Your task to perform on an android device: Play the last video I watched on Youtube Image 0: 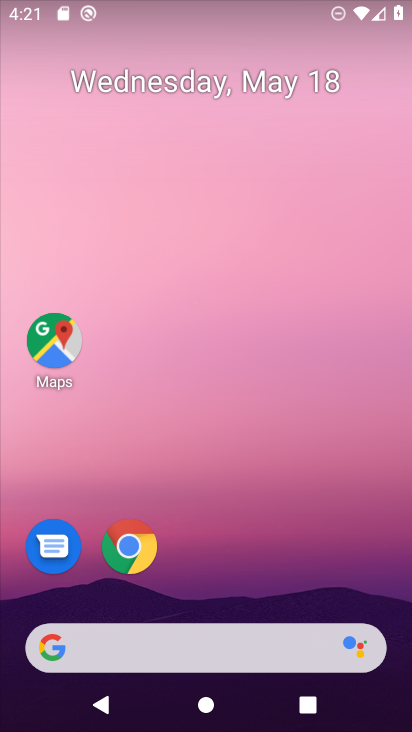
Step 0: drag from (247, 580) to (285, 202)
Your task to perform on an android device: Play the last video I watched on Youtube Image 1: 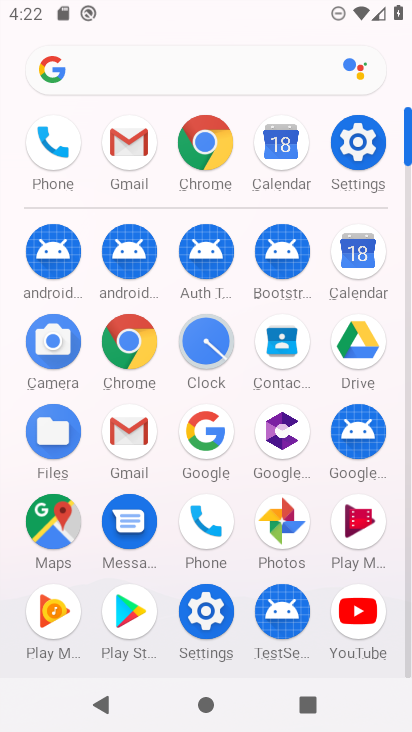
Step 1: click (353, 630)
Your task to perform on an android device: Play the last video I watched on Youtube Image 2: 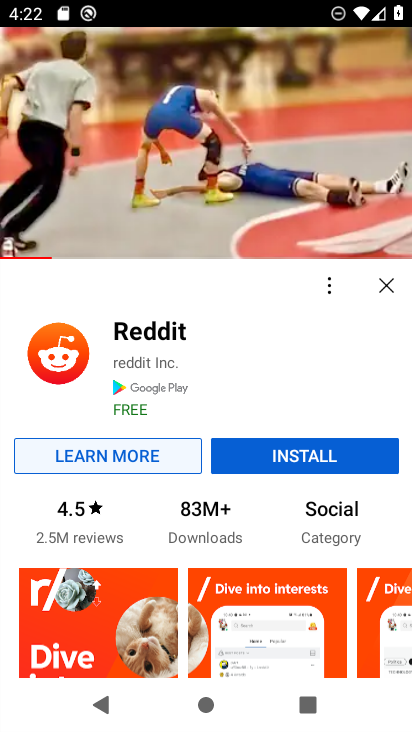
Step 2: click (218, 170)
Your task to perform on an android device: Play the last video I watched on Youtube Image 3: 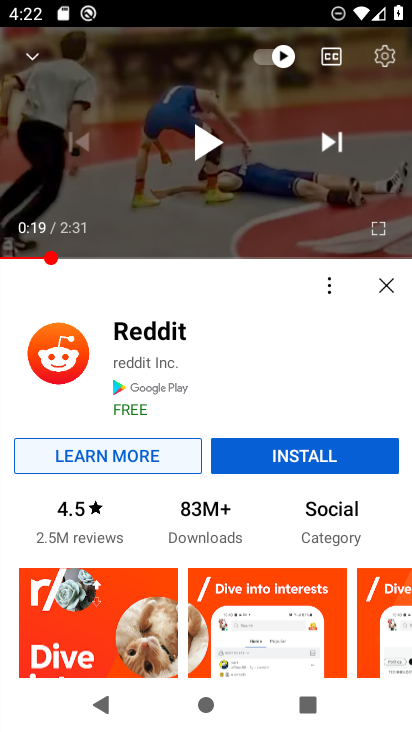
Step 3: click (209, 154)
Your task to perform on an android device: Play the last video I watched on Youtube Image 4: 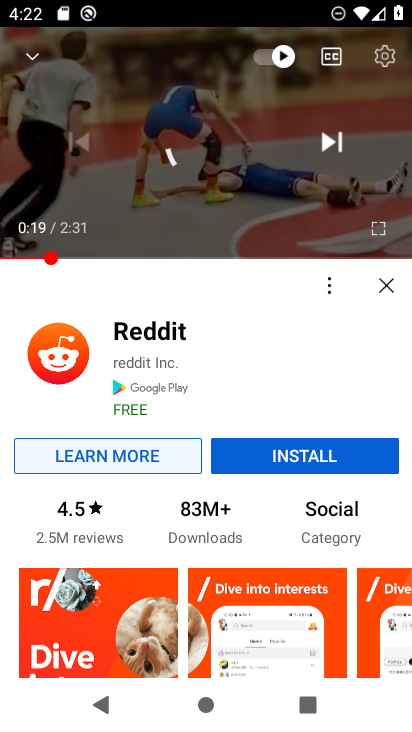
Step 4: click (37, 56)
Your task to perform on an android device: Play the last video I watched on Youtube Image 5: 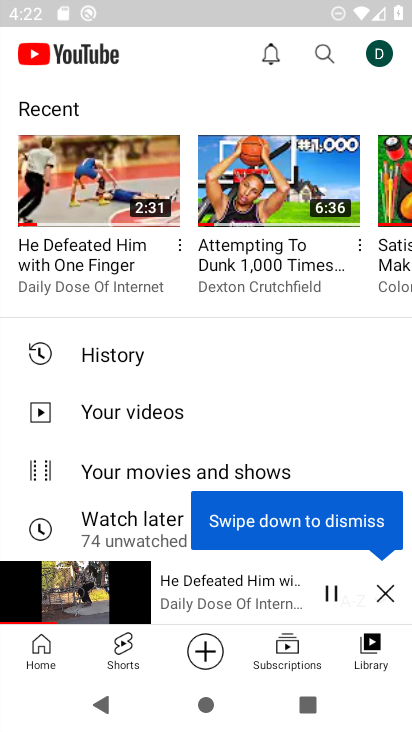
Step 5: click (391, 599)
Your task to perform on an android device: Play the last video I watched on Youtube Image 6: 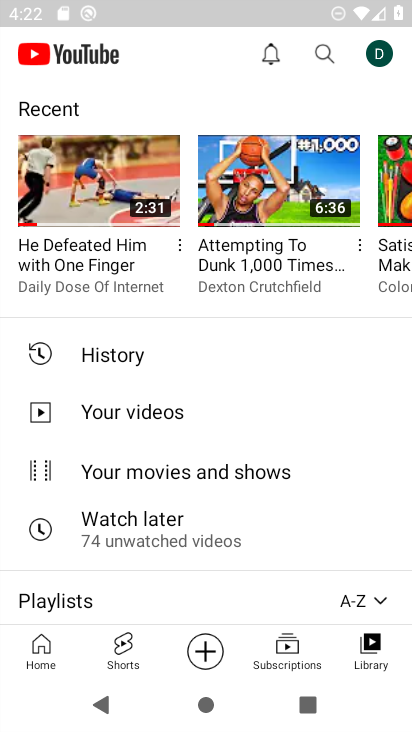
Step 6: click (90, 203)
Your task to perform on an android device: Play the last video I watched on Youtube Image 7: 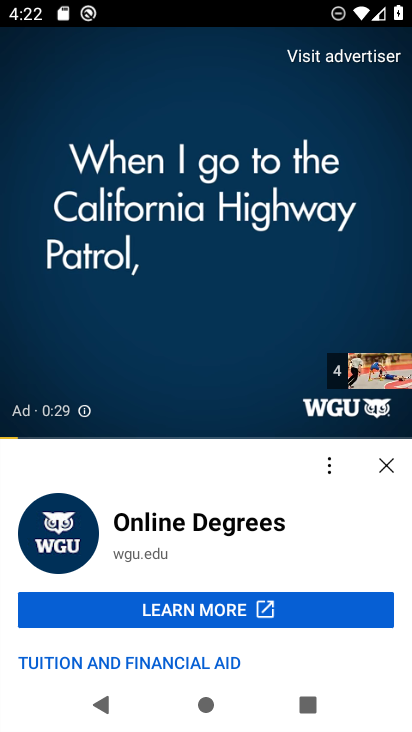
Step 7: task complete